Your task to perform on an android device: see tabs open on other devices in the chrome app Image 0: 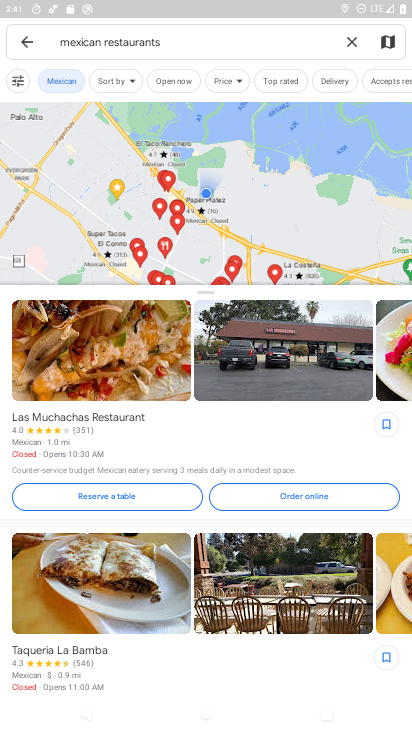
Step 0: press home button
Your task to perform on an android device: see tabs open on other devices in the chrome app Image 1: 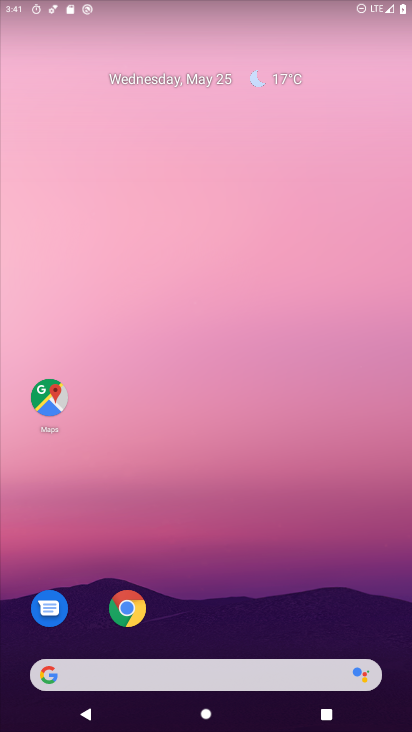
Step 1: click (122, 614)
Your task to perform on an android device: see tabs open on other devices in the chrome app Image 2: 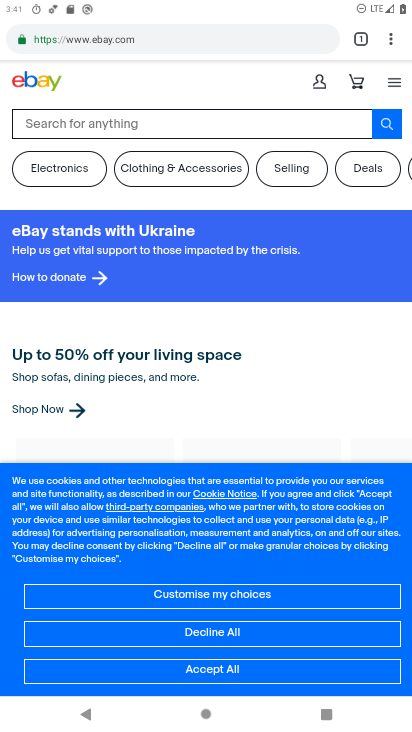
Step 2: click (382, 45)
Your task to perform on an android device: see tabs open on other devices in the chrome app Image 3: 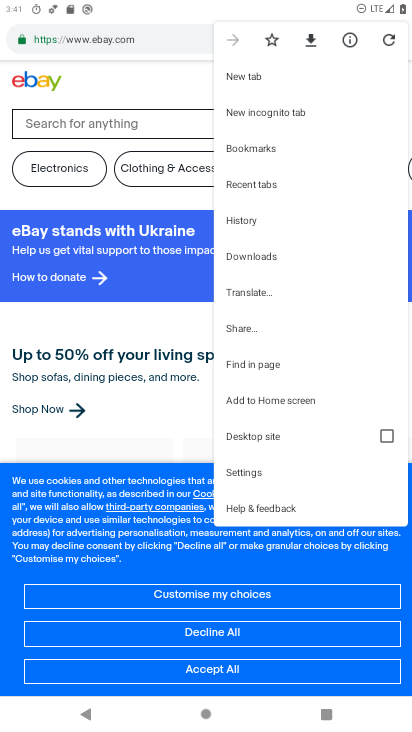
Step 3: click (258, 183)
Your task to perform on an android device: see tabs open on other devices in the chrome app Image 4: 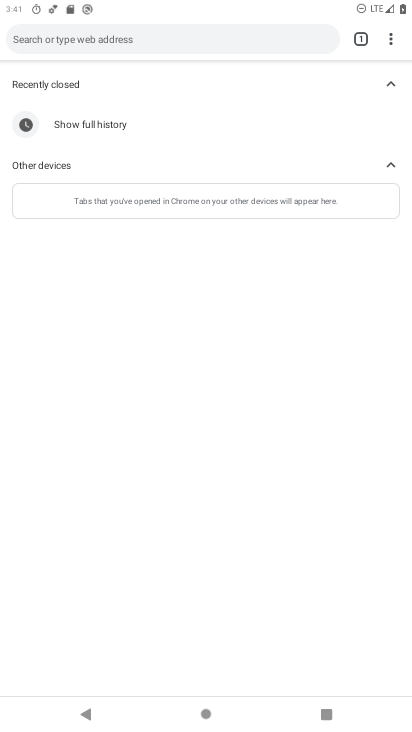
Step 4: task complete